Your task to perform on an android device: Go to Google Image 0: 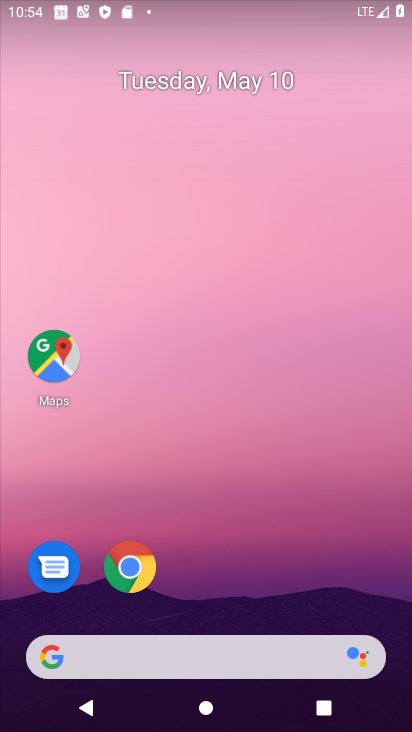
Step 0: press home button
Your task to perform on an android device: Go to Google Image 1: 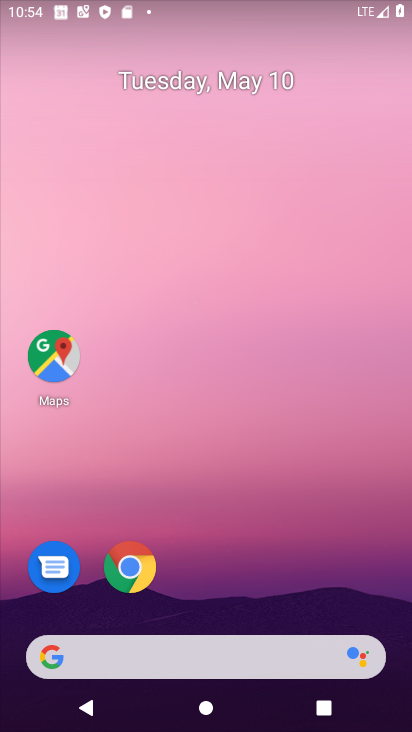
Step 1: click (38, 660)
Your task to perform on an android device: Go to Google Image 2: 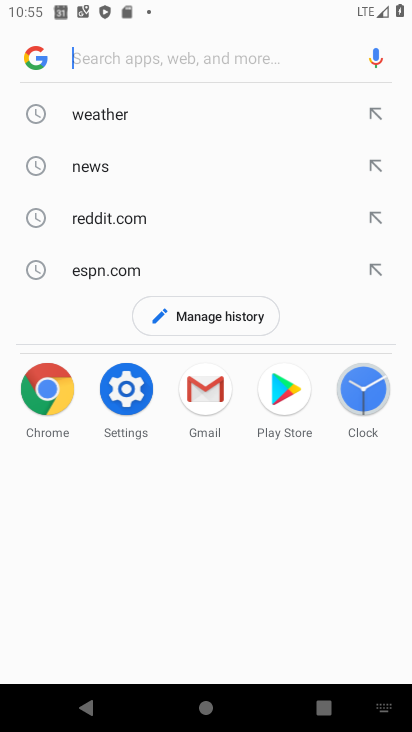
Step 2: click (39, 52)
Your task to perform on an android device: Go to Google Image 3: 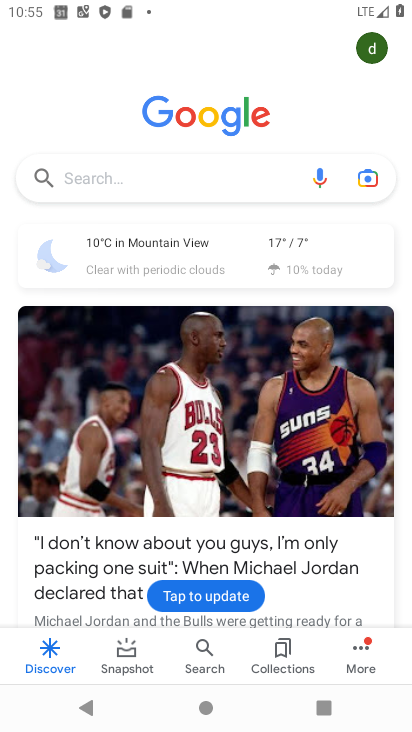
Step 3: task complete